Your task to perform on an android device: Find coffee shops on Maps Image 0: 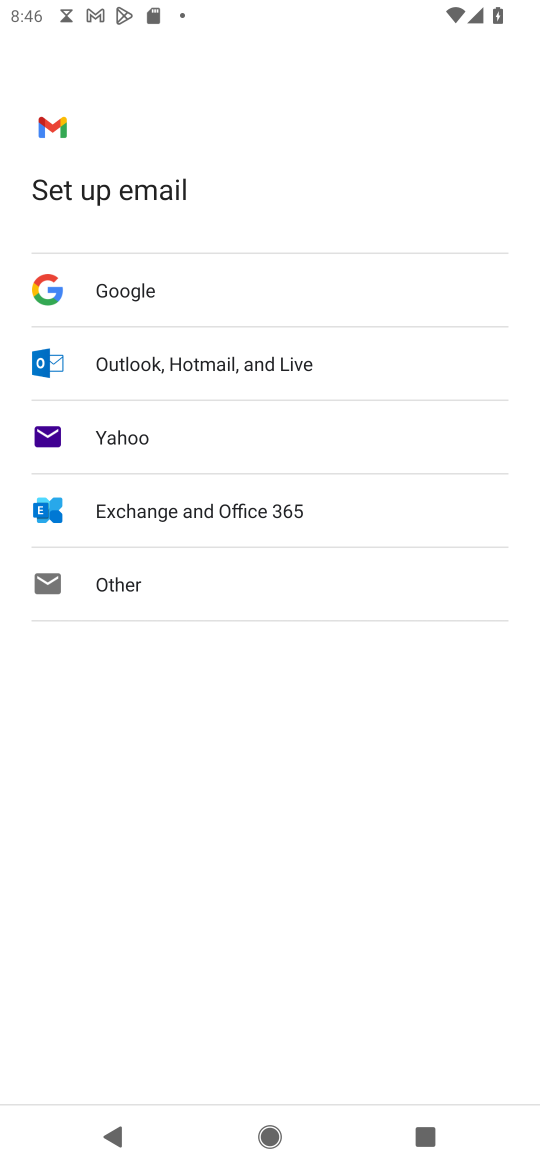
Step 0: press home button
Your task to perform on an android device: Find coffee shops on Maps Image 1: 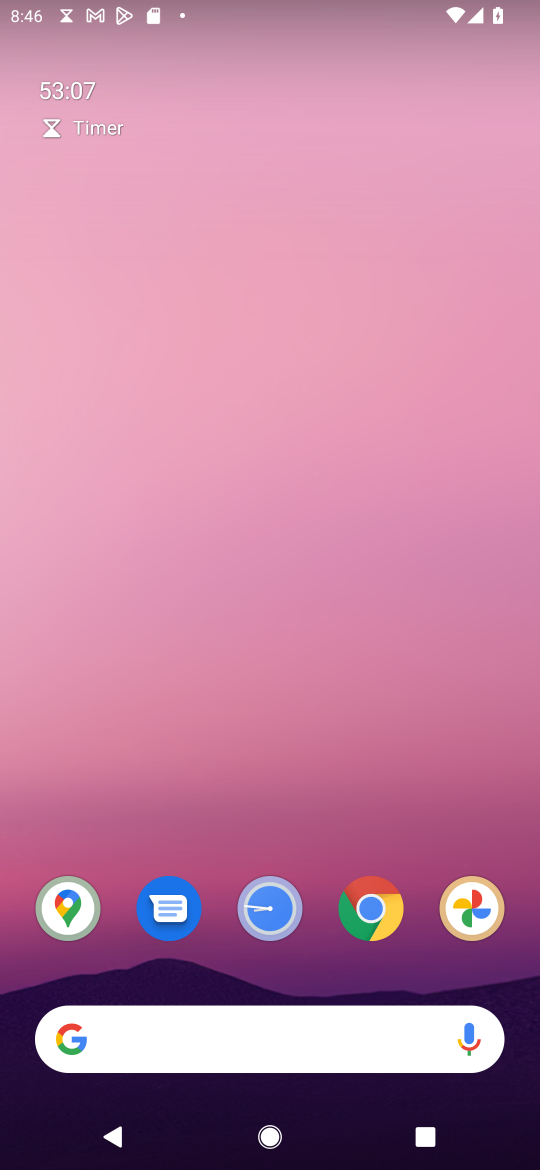
Step 1: press back button
Your task to perform on an android device: Find coffee shops on Maps Image 2: 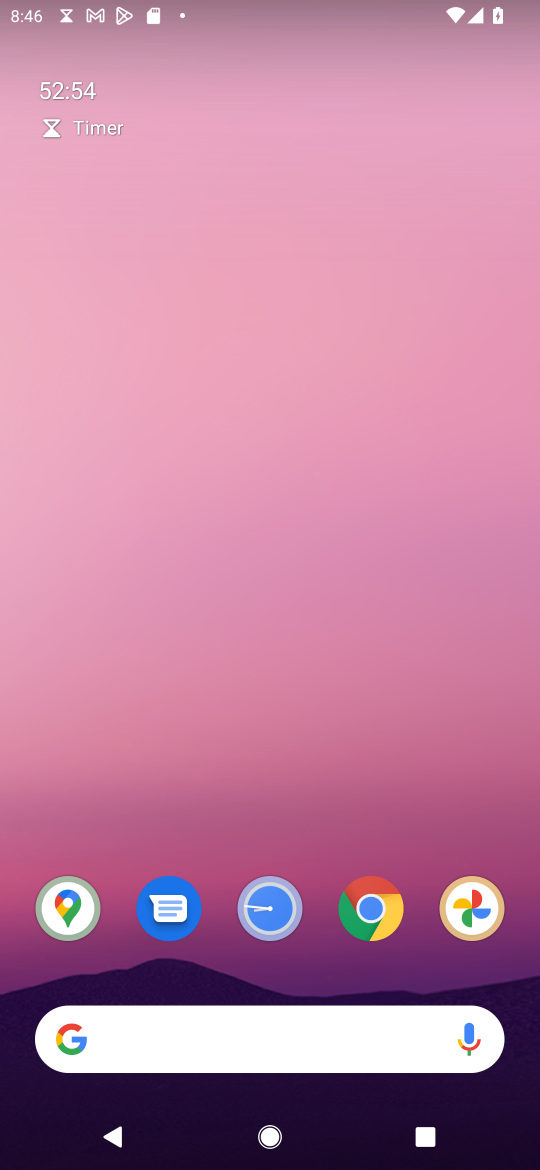
Step 2: click (80, 922)
Your task to perform on an android device: Find coffee shops on Maps Image 3: 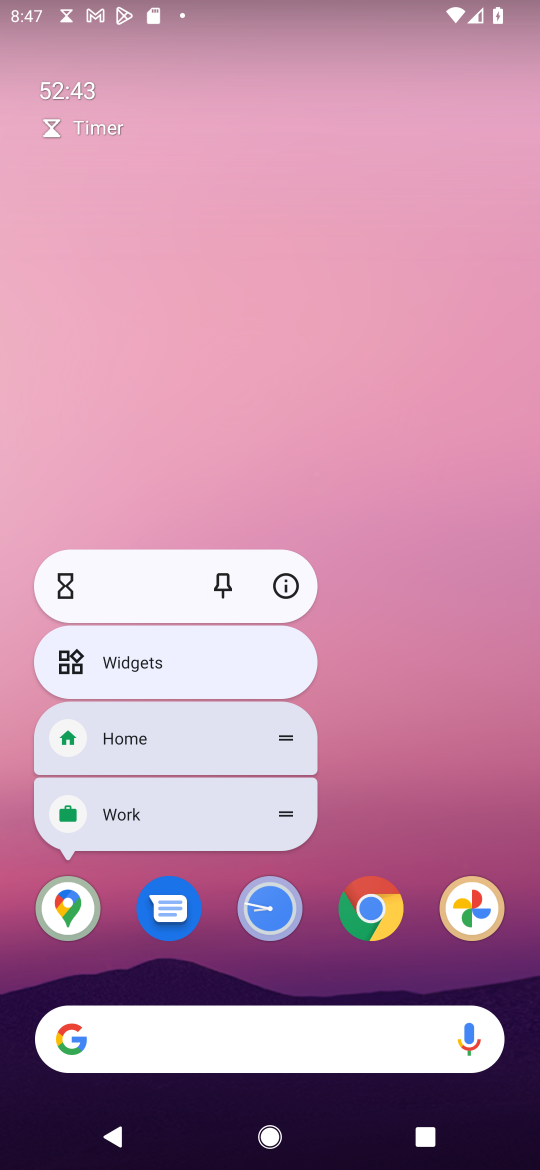
Step 3: click (61, 912)
Your task to perform on an android device: Find coffee shops on Maps Image 4: 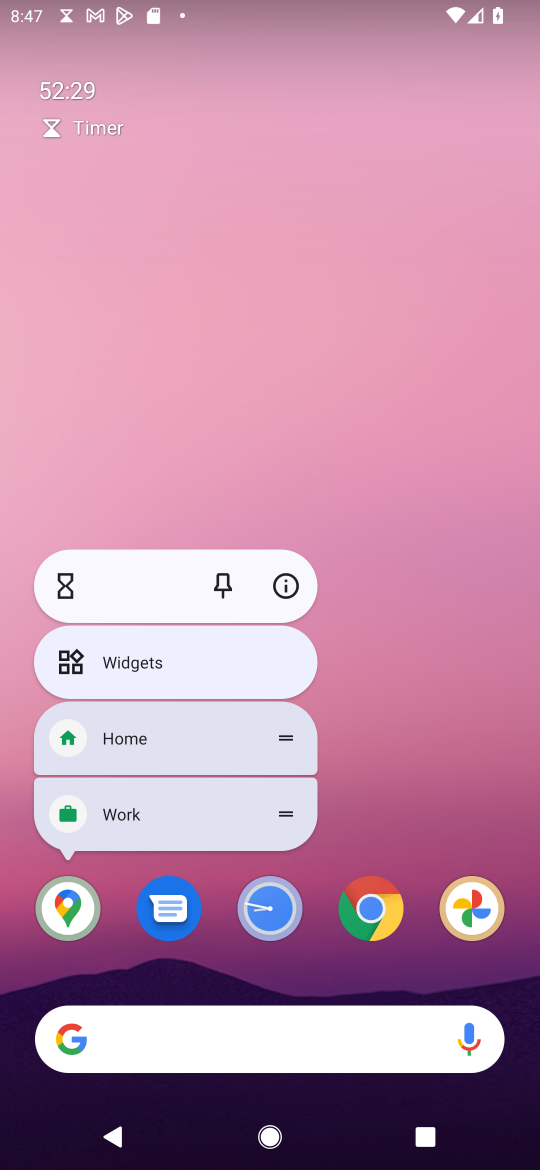
Step 4: click (63, 936)
Your task to perform on an android device: Find coffee shops on Maps Image 5: 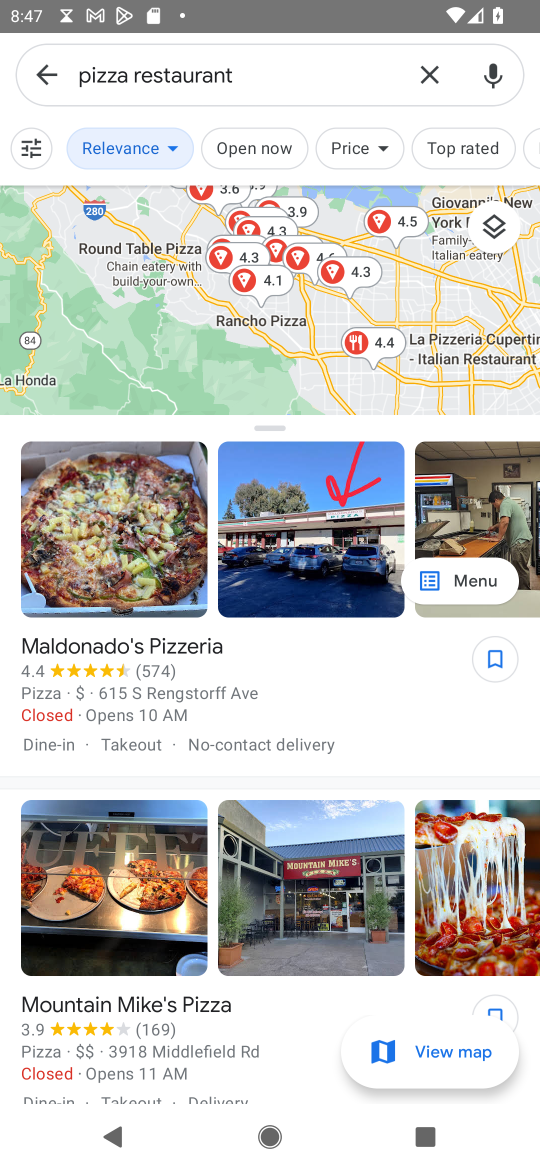
Step 5: click (428, 66)
Your task to perform on an android device: Find coffee shops on Maps Image 6: 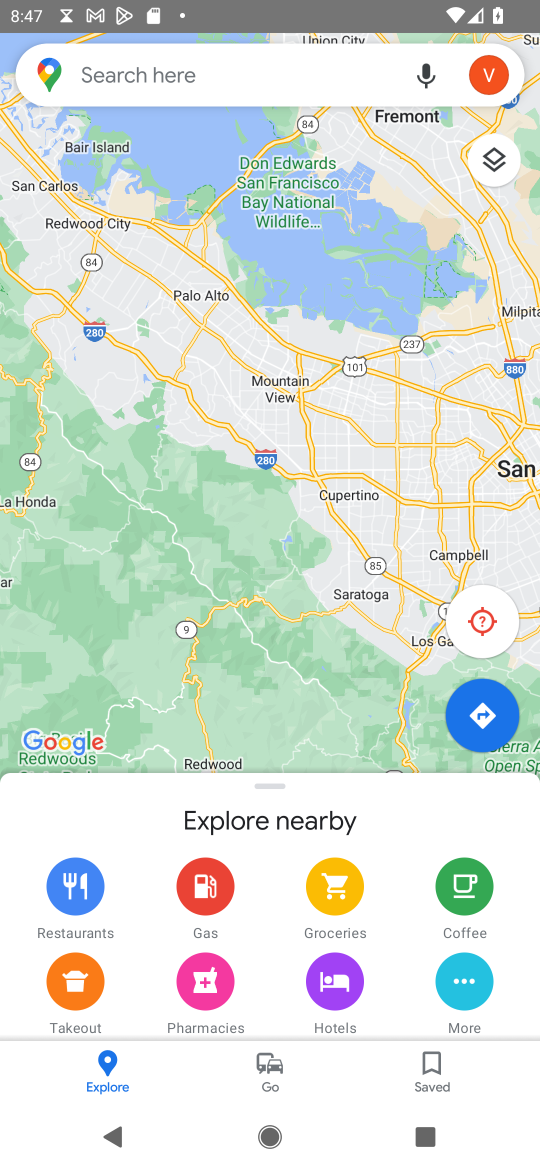
Step 6: click (287, 95)
Your task to perform on an android device: Find coffee shops on Maps Image 7: 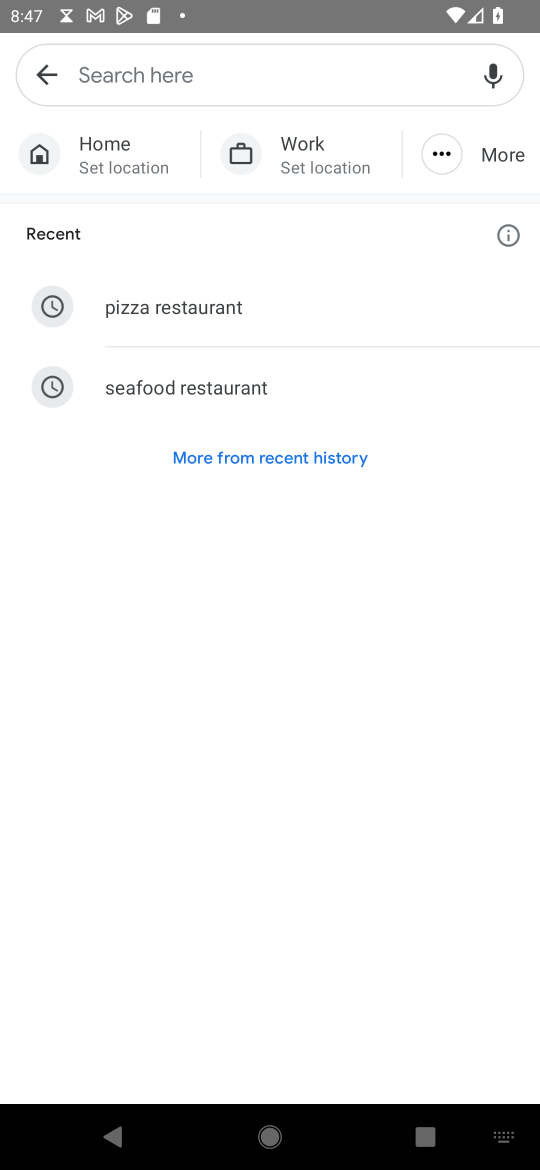
Step 7: type "coffee shops"
Your task to perform on an android device: Find coffee shops on Maps Image 8: 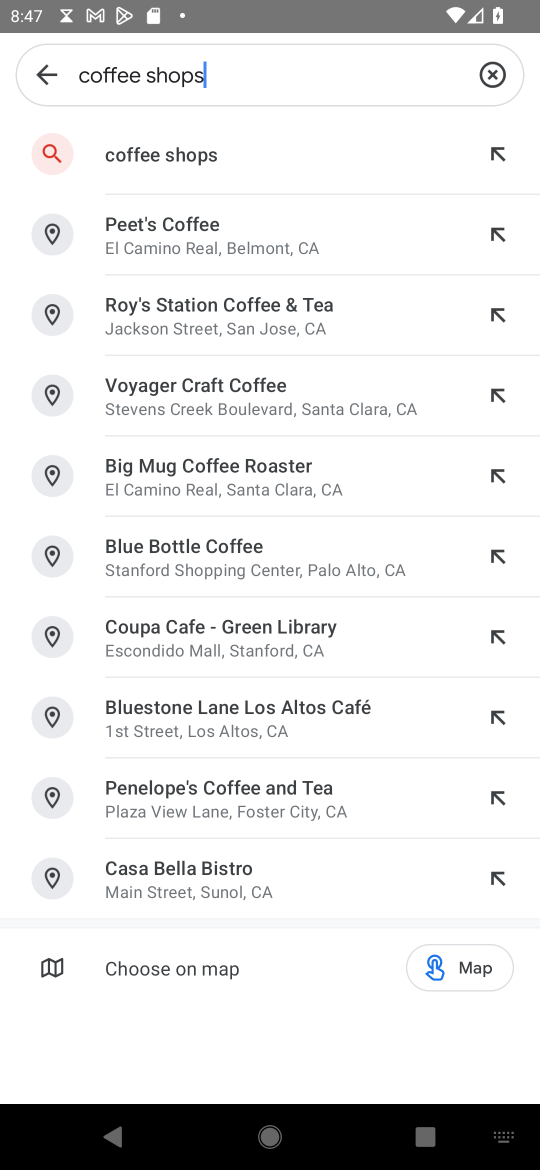
Step 8: click (228, 137)
Your task to perform on an android device: Find coffee shops on Maps Image 9: 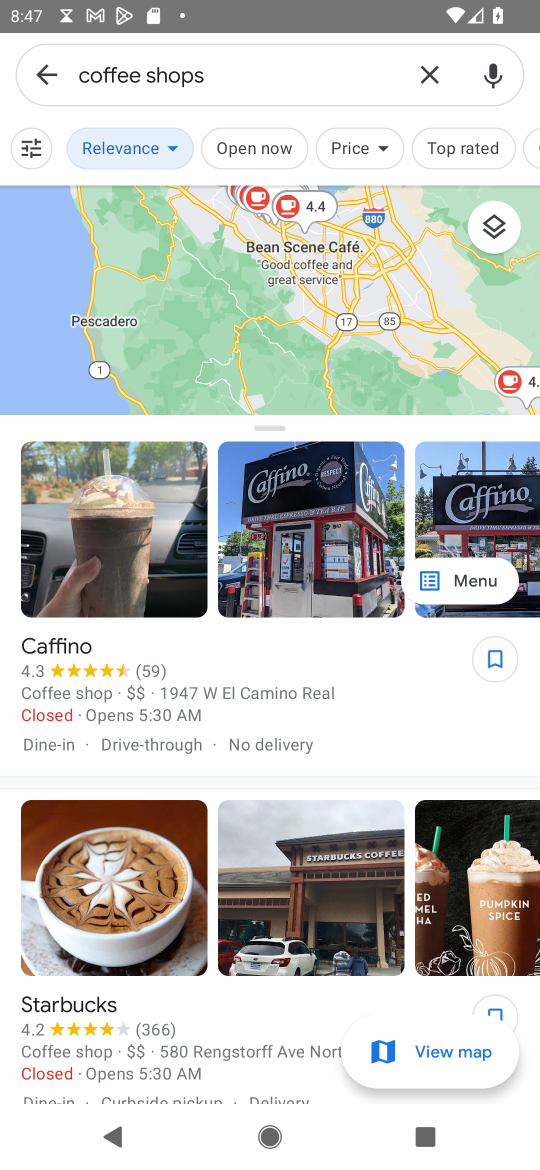
Step 9: task complete